Your task to perform on an android device: Search for a tv stand on Ikea Image 0: 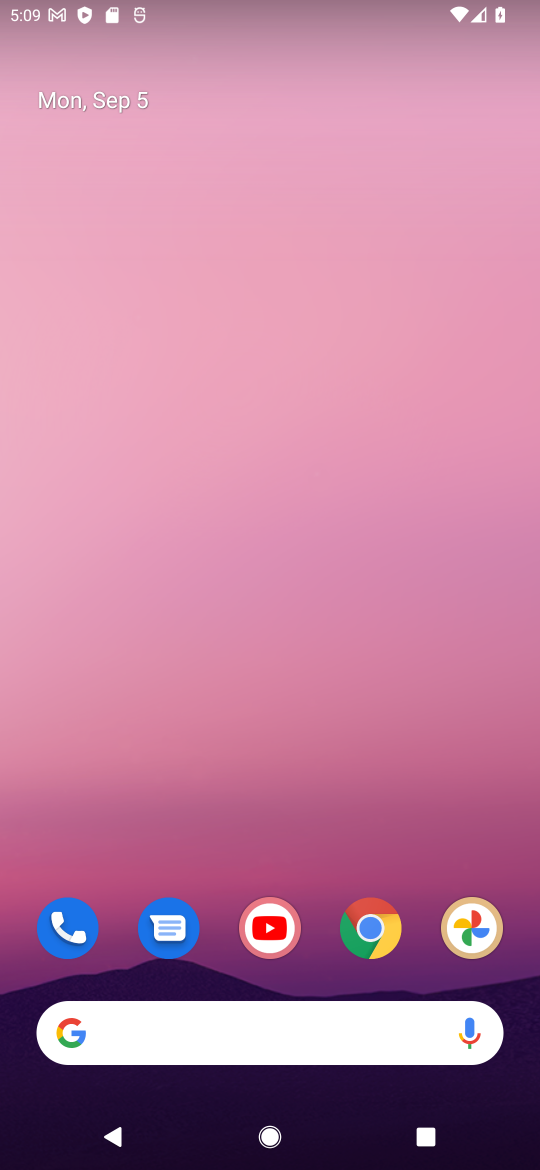
Step 0: click (384, 935)
Your task to perform on an android device: Search for a tv stand on Ikea Image 1: 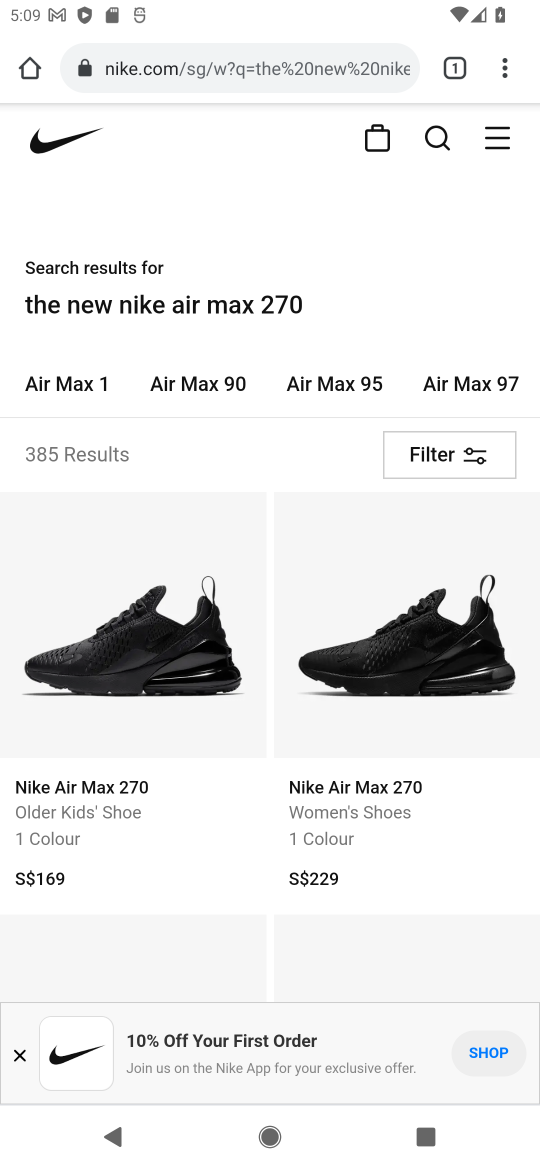
Step 1: click (225, 65)
Your task to perform on an android device: Search for a tv stand on Ikea Image 2: 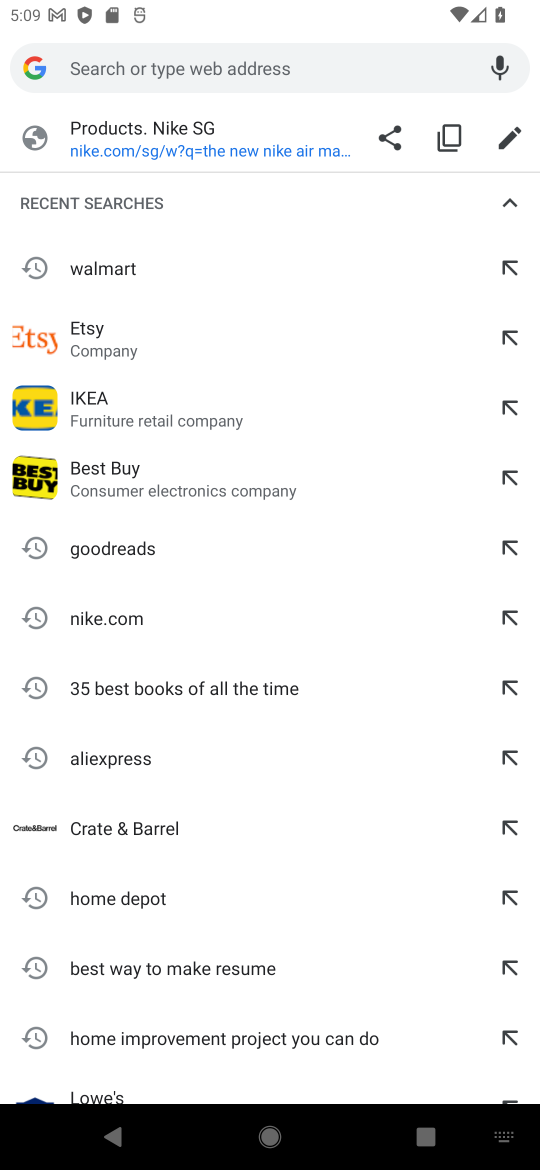
Step 2: type "ikea"
Your task to perform on an android device: Search for a tv stand on Ikea Image 3: 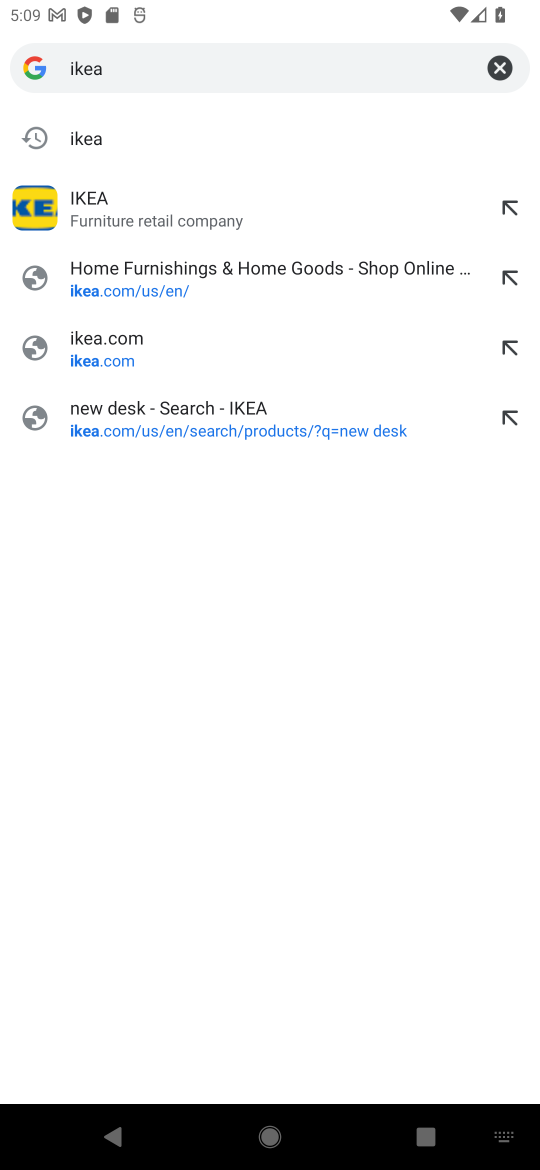
Step 3: click (112, 136)
Your task to perform on an android device: Search for a tv stand on Ikea Image 4: 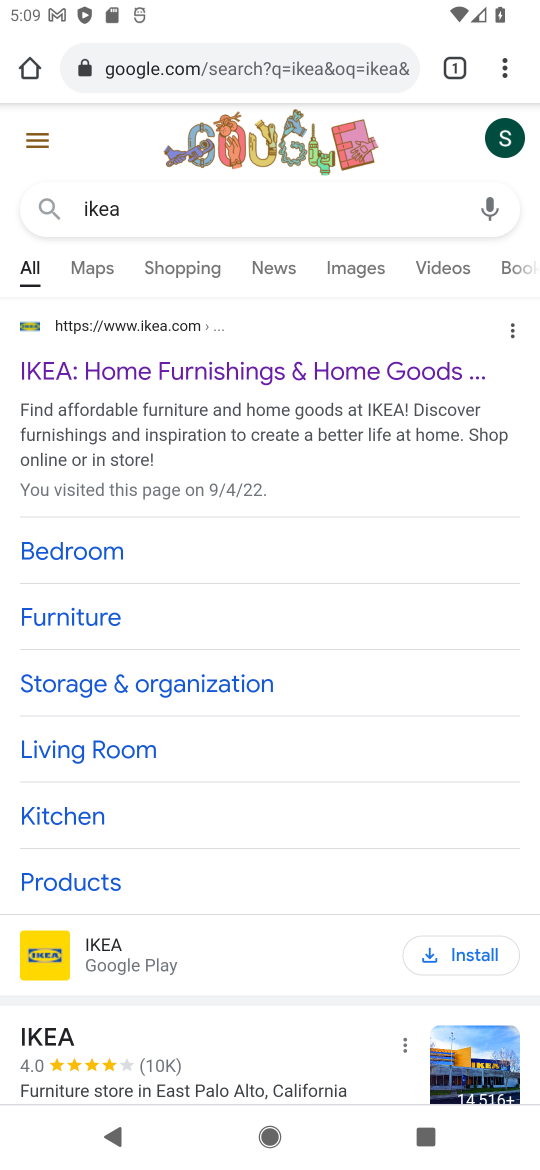
Step 4: click (183, 376)
Your task to perform on an android device: Search for a tv stand on Ikea Image 5: 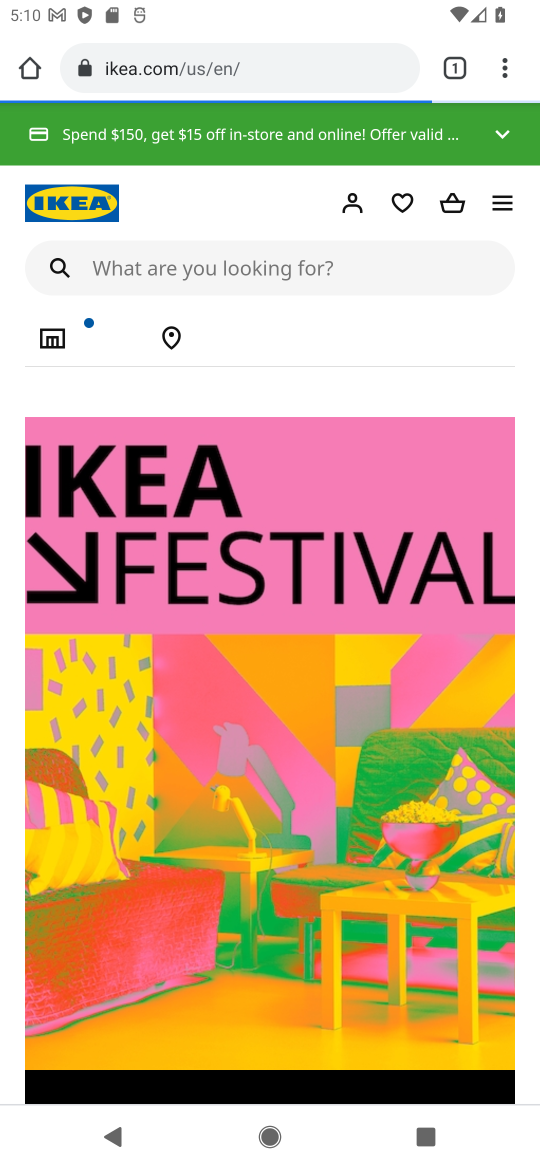
Step 5: click (325, 260)
Your task to perform on an android device: Search for a tv stand on Ikea Image 6: 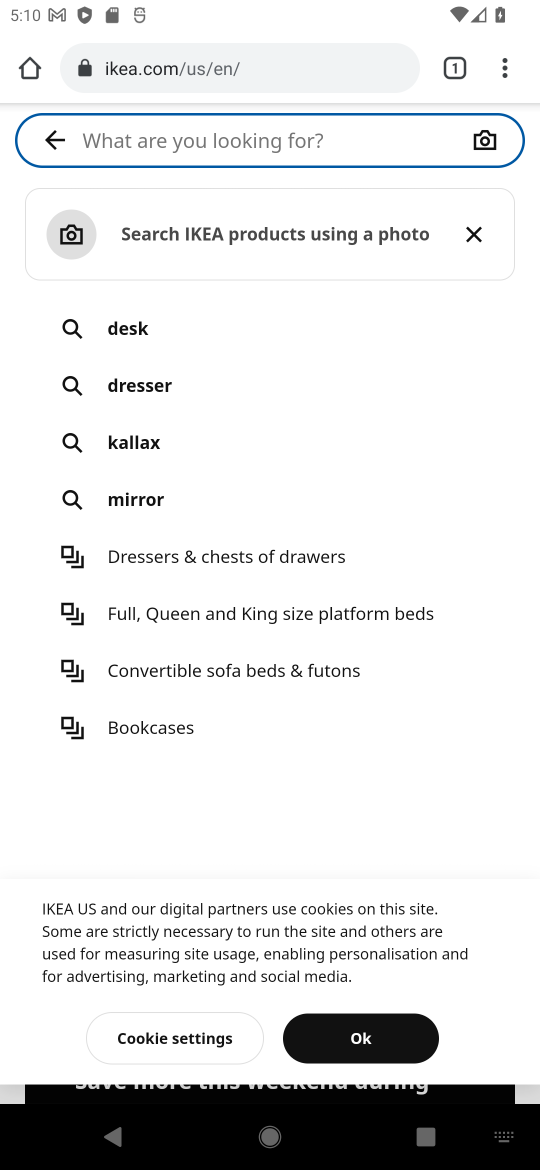
Step 6: type "tv stands"
Your task to perform on an android device: Search for a tv stand on Ikea Image 7: 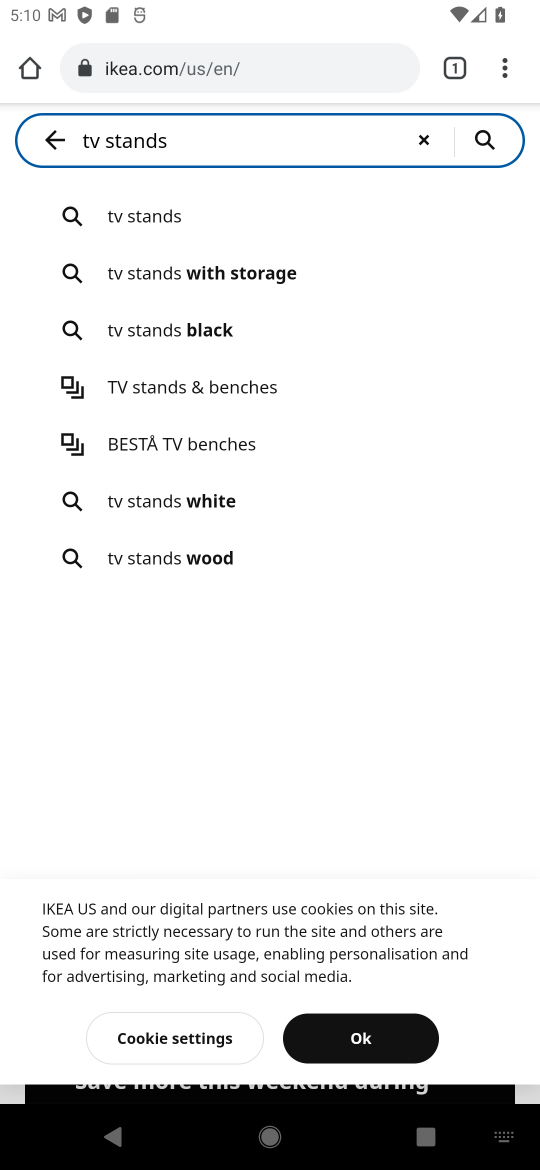
Step 7: click (137, 202)
Your task to perform on an android device: Search for a tv stand on Ikea Image 8: 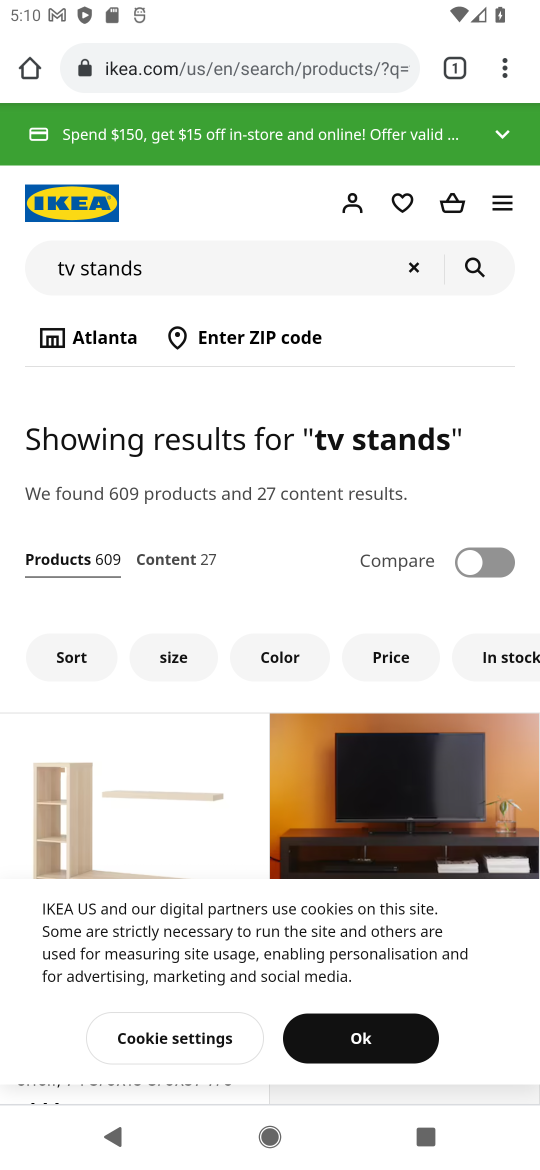
Step 8: task complete